Your task to perform on an android device: turn off priority inbox in the gmail app Image 0: 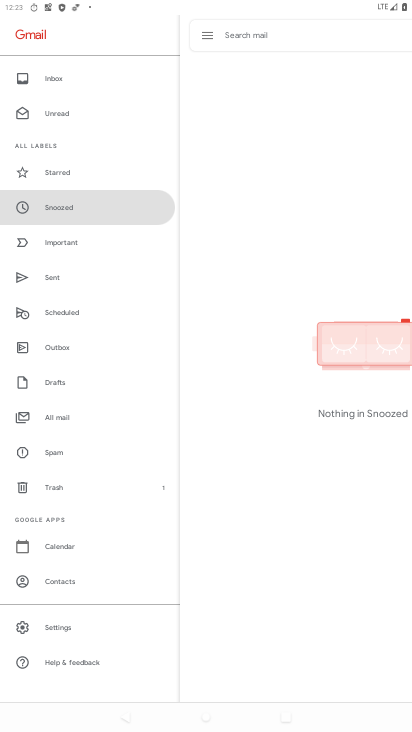
Step 0: press home button
Your task to perform on an android device: turn off priority inbox in the gmail app Image 1: 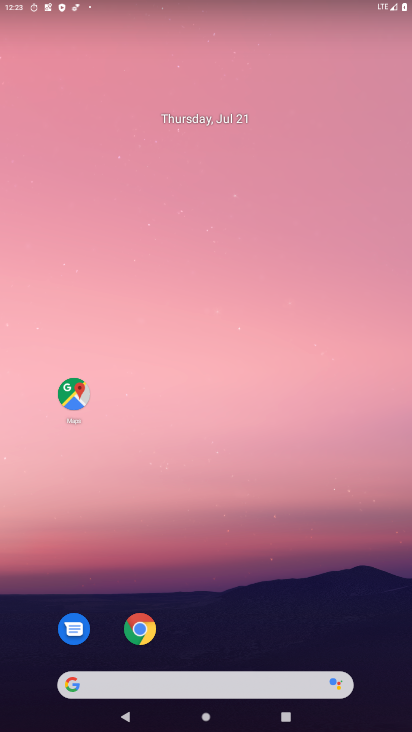
Step 1: drag from (312, 680) to (253, 90)
Your task to perform on an android device: turn off priority inbox in the gmail app Image 2: 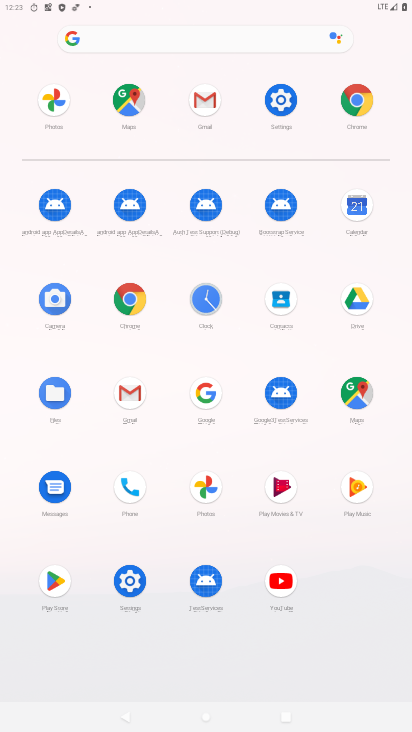
Step 2: click (133, 399)
Your task to perform on an android device: turn off priority inbox in the gmail app Image 3: 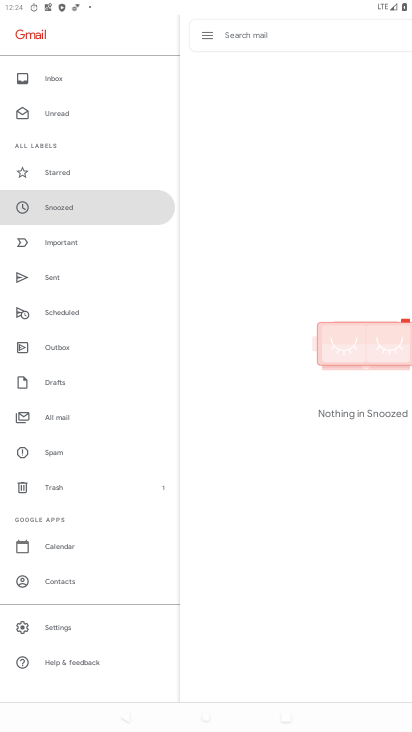
Step 3: click (68, 624)
Your task to perform on an android device: turn off priority inbox in the gmail app Image 4: 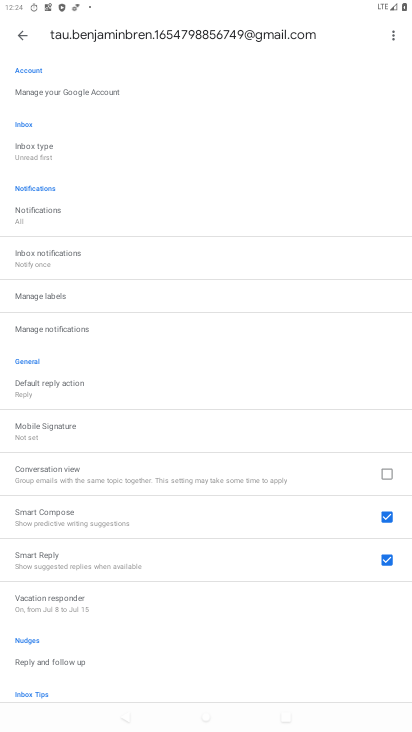
Step 4: click (42, 154)
Your task to perform on an android device: turn off priority inbox in the gmail app Image 5: 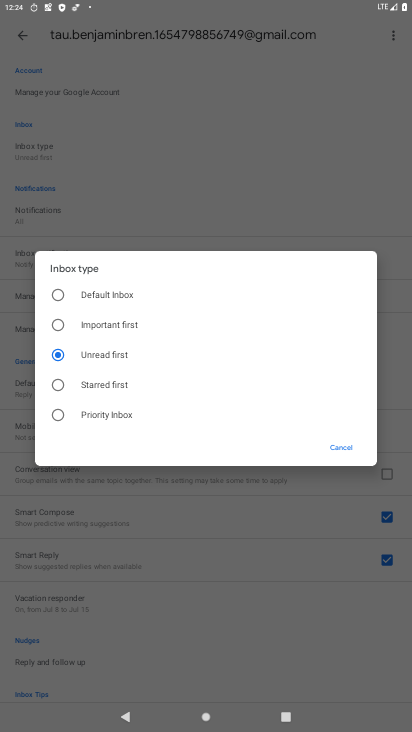
Step 5: click (54, 296)
Your task to perform on an android device: turn off priority inbox in the gmail app Image 6: 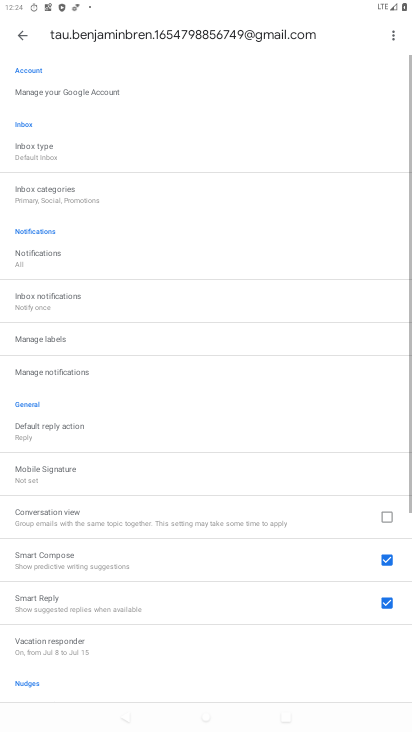
Step 6: task complete